Your task to perform on an android device: Open sound settings Image 0: 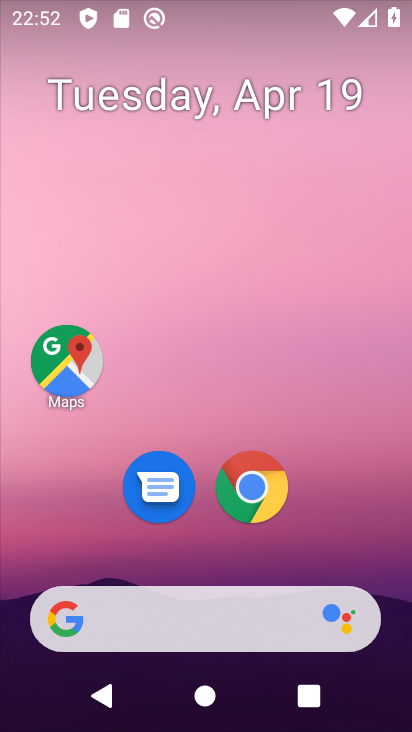
Step 0: drag from (165, 571) to (246, 86)
Your task to perform on an android device: Open sound settings Image 1: 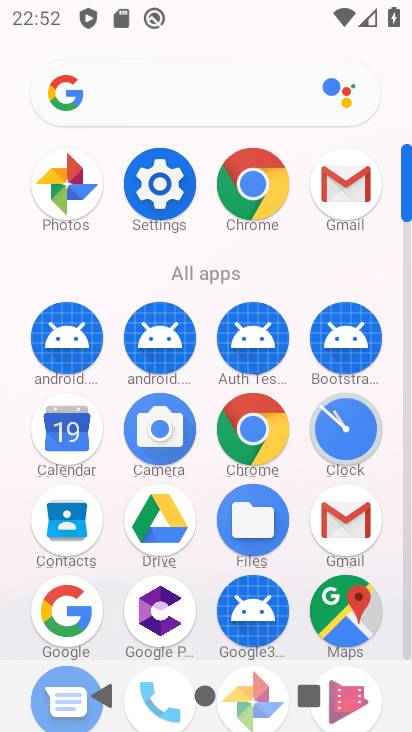
Step 1: click (153, 195)
Your task to perform on an android device: Open sound settings Image 2: 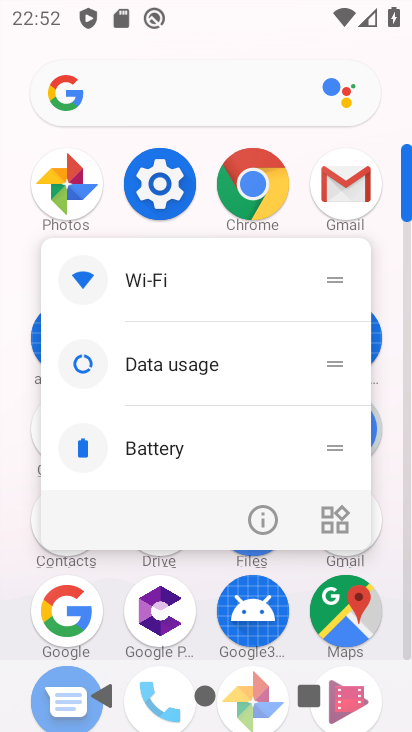
Step 2: click (156, 190)
Your task to perform on an android device: Open sound settings Image 3: 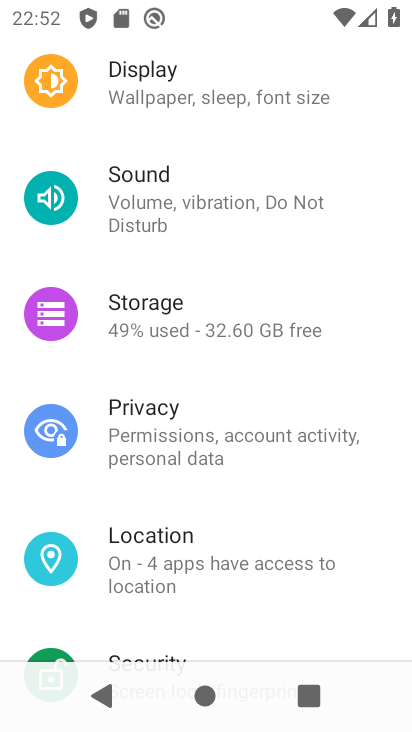
Step 3: click (173, 184)
Your task to perform on an android device: Open sound settings Image 4: 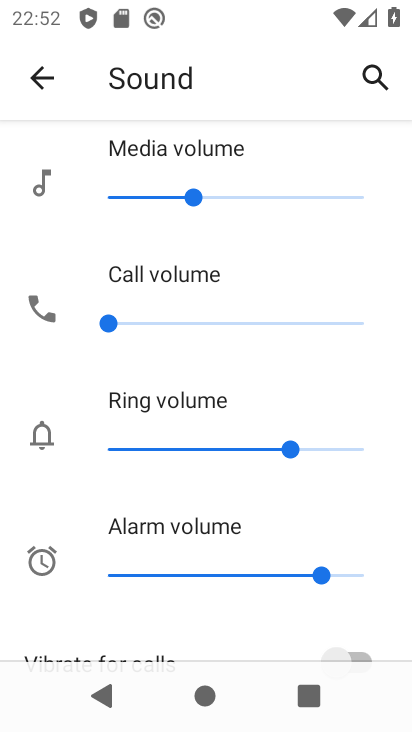
Step 4: task complete